Your task to perform on an android device: Open Yahoo.com Image 0: 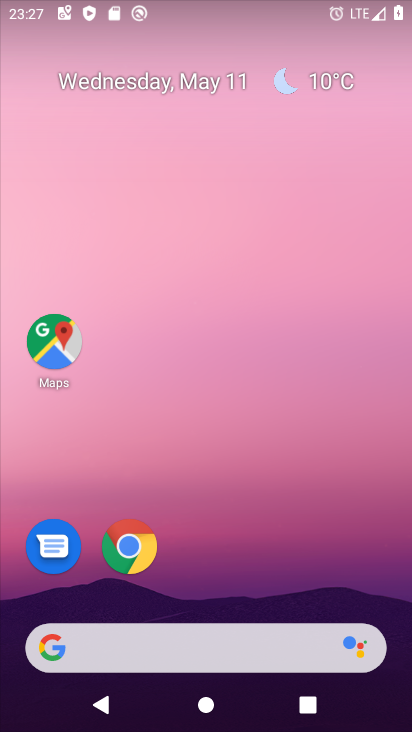
Step 0: click (127, 546)
Your task to perform on an android device: Open Yahoo.com Image 1: 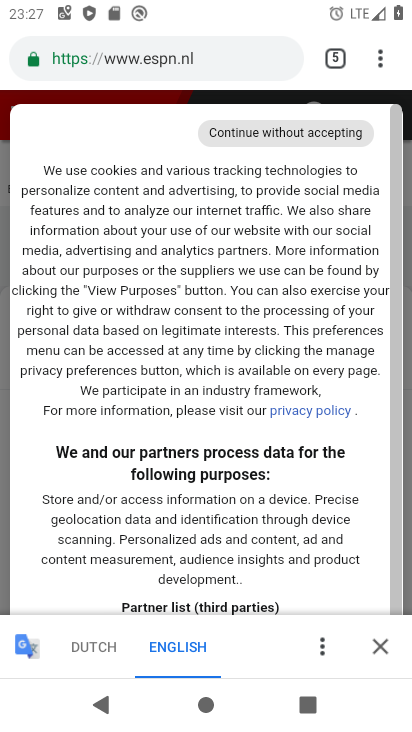
Step 1: click (200, 56)
Your task to perform on an android device: Open Yahoo.com Image 2: 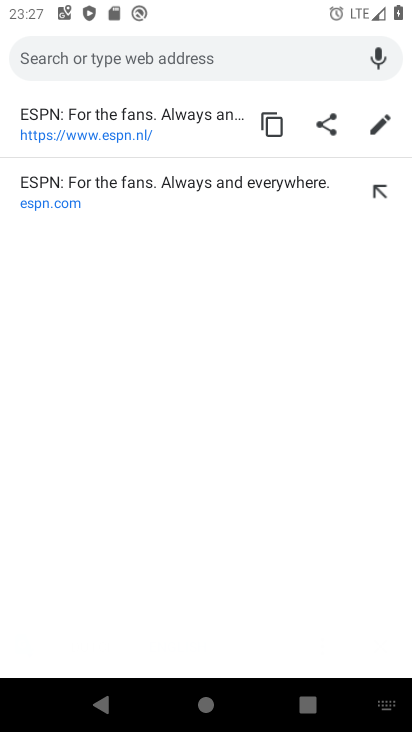
Step 2: type "yahoo.com"
Your task to perform on an android device: Open Yahoo.com Image 3: 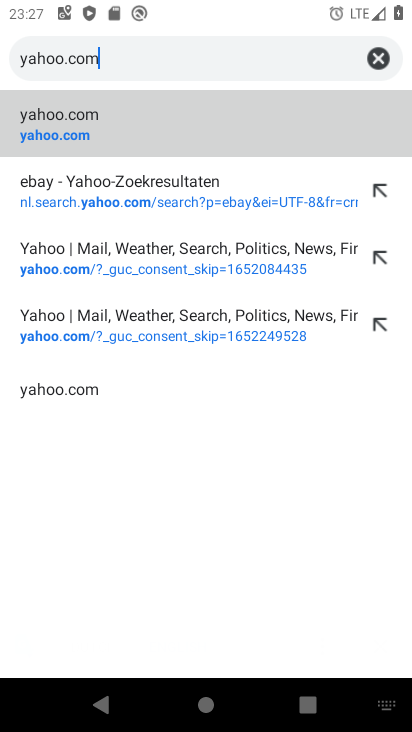
Step 3: click (41, 118)
Your task to perform on an android device: Open Yahoo.com Image 4: 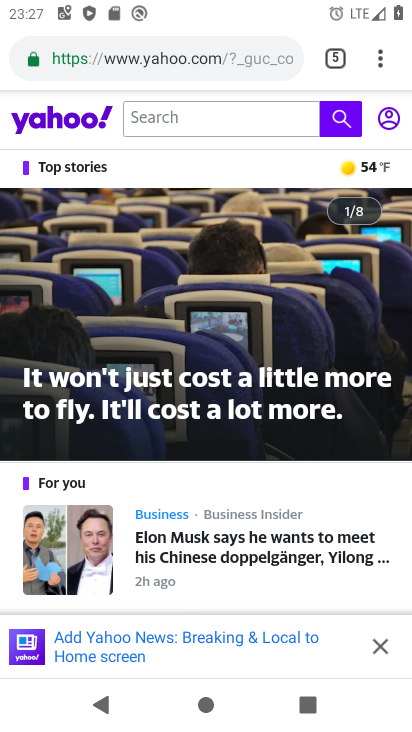
Step 4: task complete